Your task to perform on an android device: Is it going to rain tomorrow? Image 0: 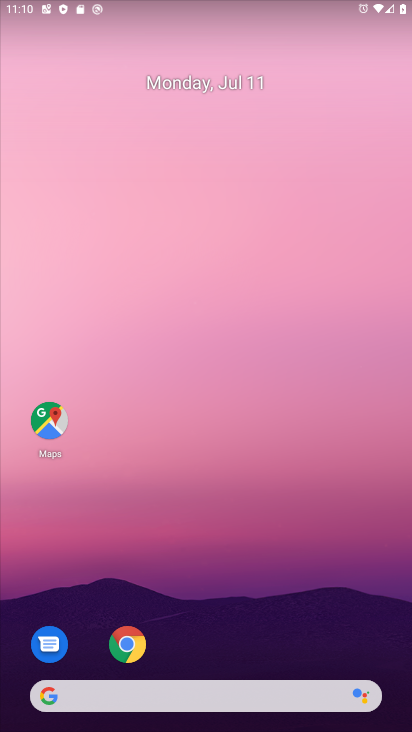
Step 0: press home button
Your task to perform on an android device: Is it going to rain tomorrow? Image 1: 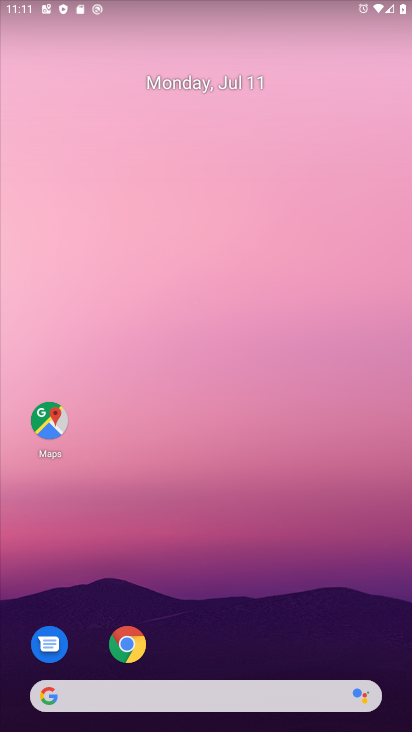
Step 1: click (186, 697)
Your task to perform on an android device: Is it going to rain tomorrow? Image 2: 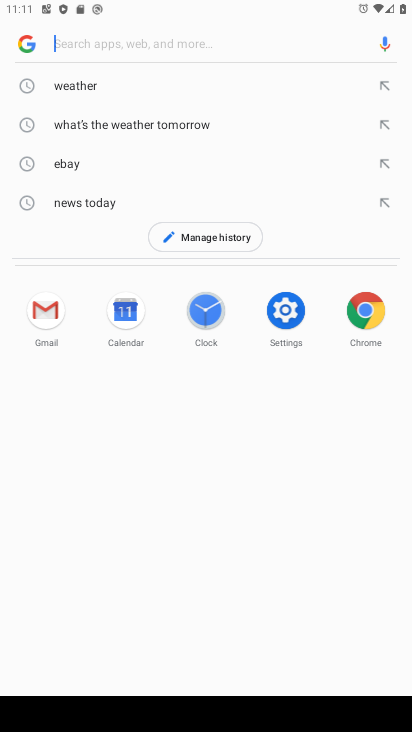
Step 2: click (153, 125)
Your task to perform on an android device: Is it going to rain tomorrow? Image 3: 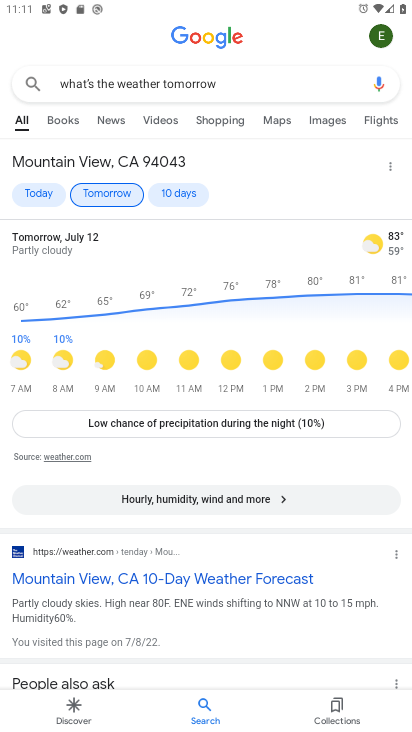
Step 3: task complete